Your task to perform on an android device: Search for Mexican restaurants on Maps Image 0: 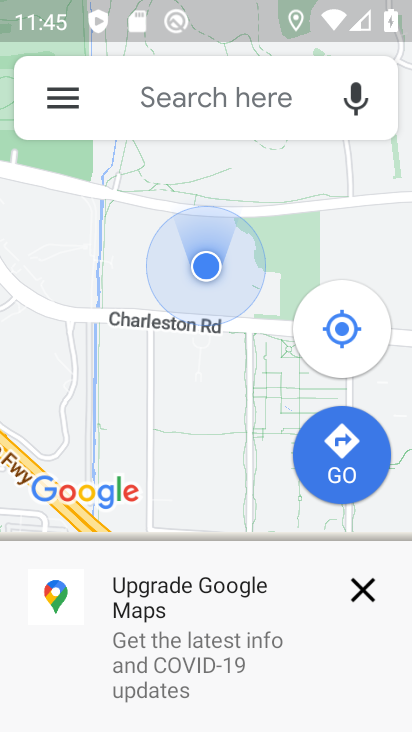
Step 0: click (208, 86)
Your task to perform on an android device: Search for Mexican restaurants on Maps Image 1: 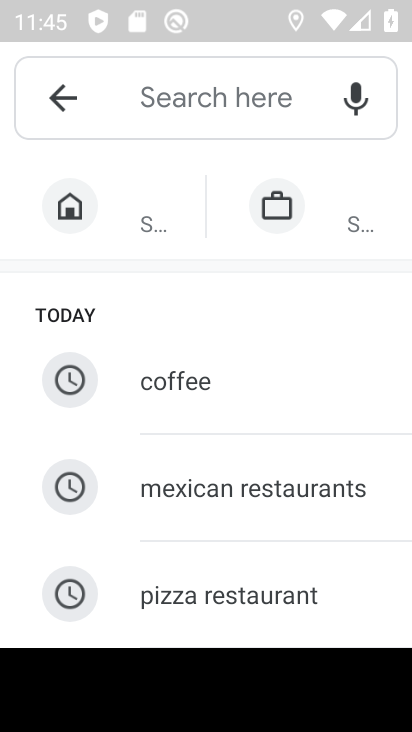
Step 1: type "Mexican restaurants"
Your task to perform on an android device: Search for Mexican restaurants on Maps Image 2: 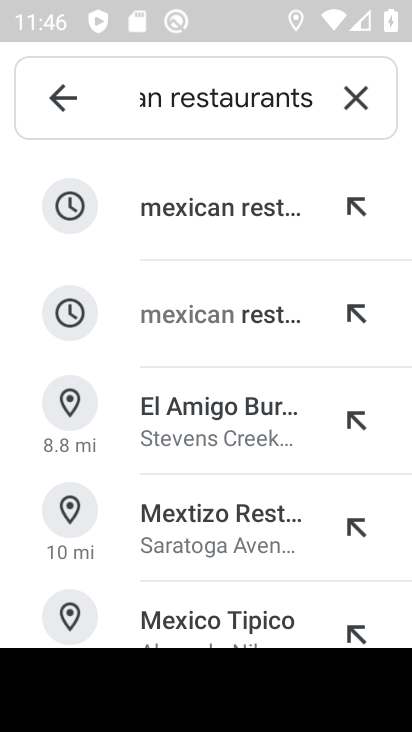
Step 2: click (235, 210)
Your task to perform on an android device: Search for Mexican restaurants on Maps Image 3: 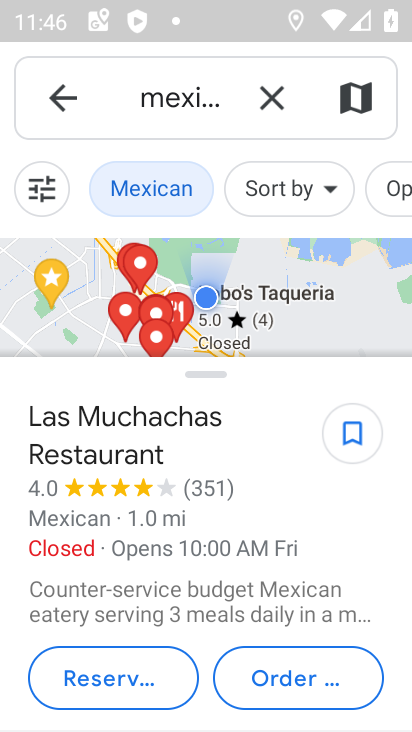
Step 3: task complete